Your task to perform on an android device: turn on translation in the chrome app Image 0: 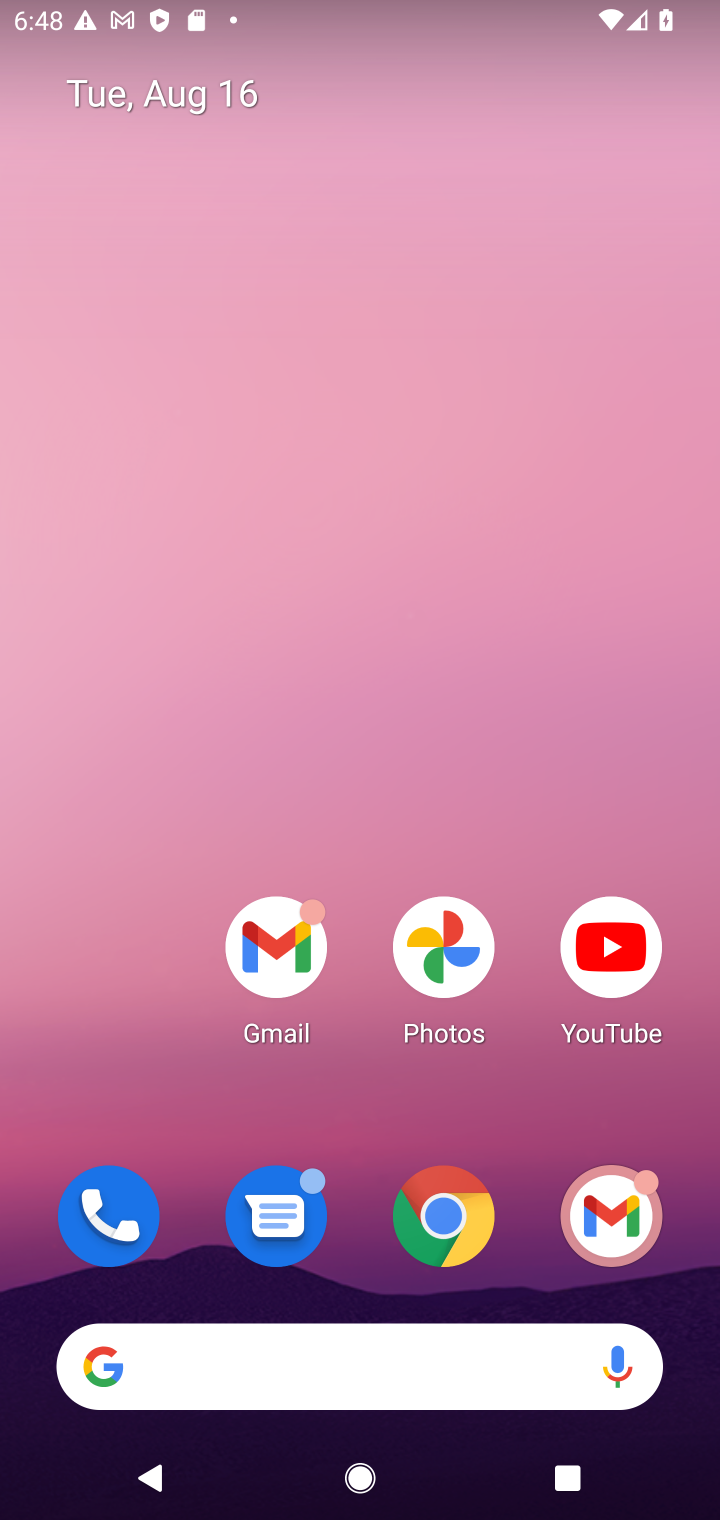
Step 0: press home button
Your task to perform on an android device: turn on translation in the chrome app Image 1: 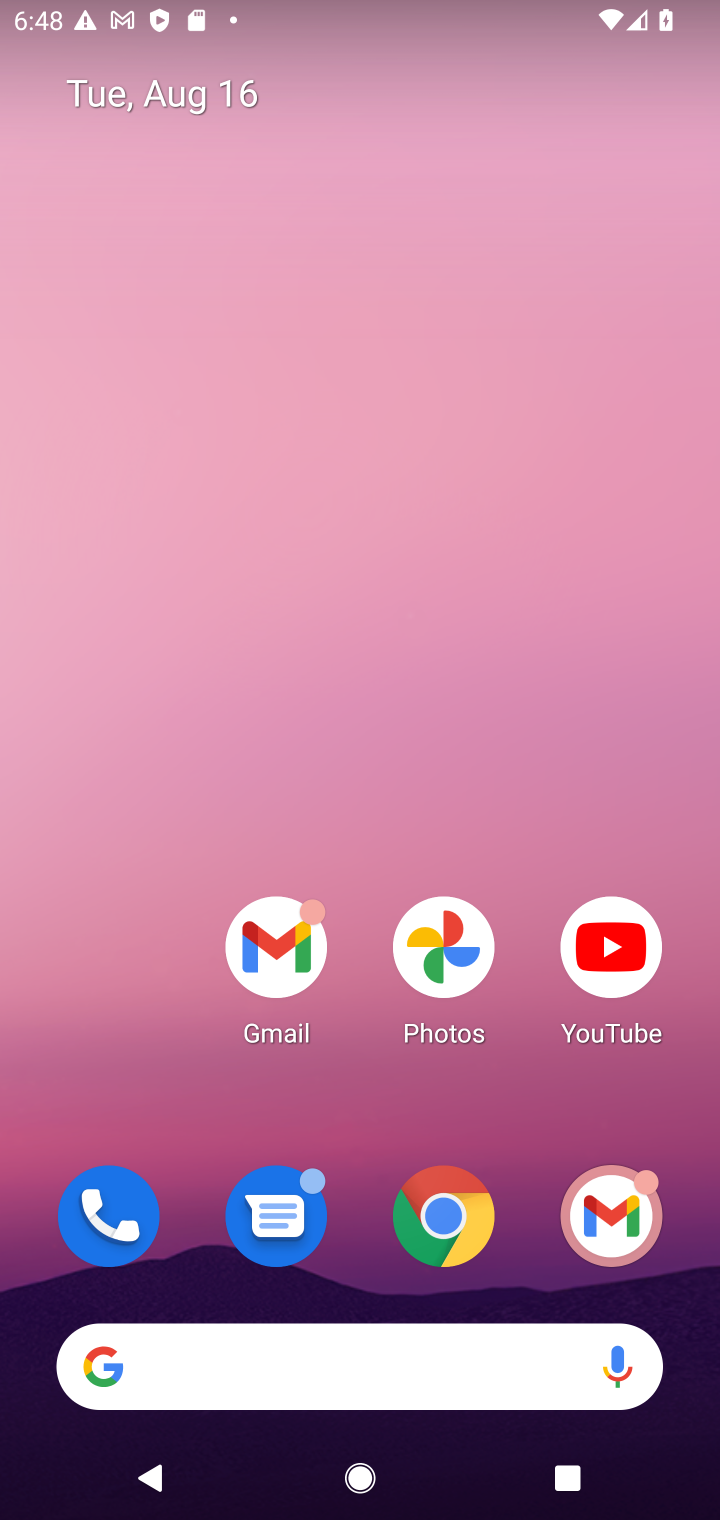
Step 1: drag from (150, 1036) to (141, 355)
Your task to perform on an android device: turn on translation in the chrome app Image 2: 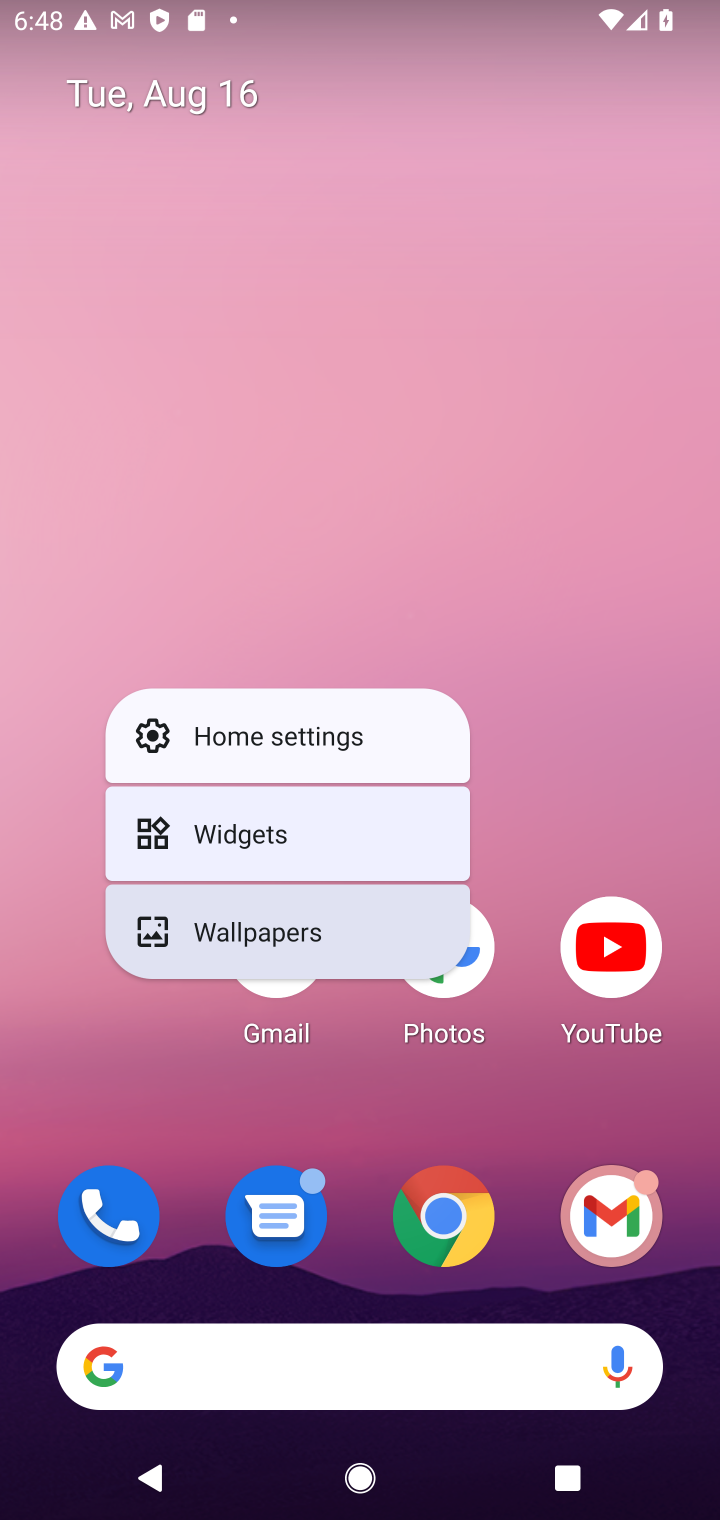
Step 2: click (109, 555)
Your task to perform on an android device: turn on translation in the chrome app Image 3: 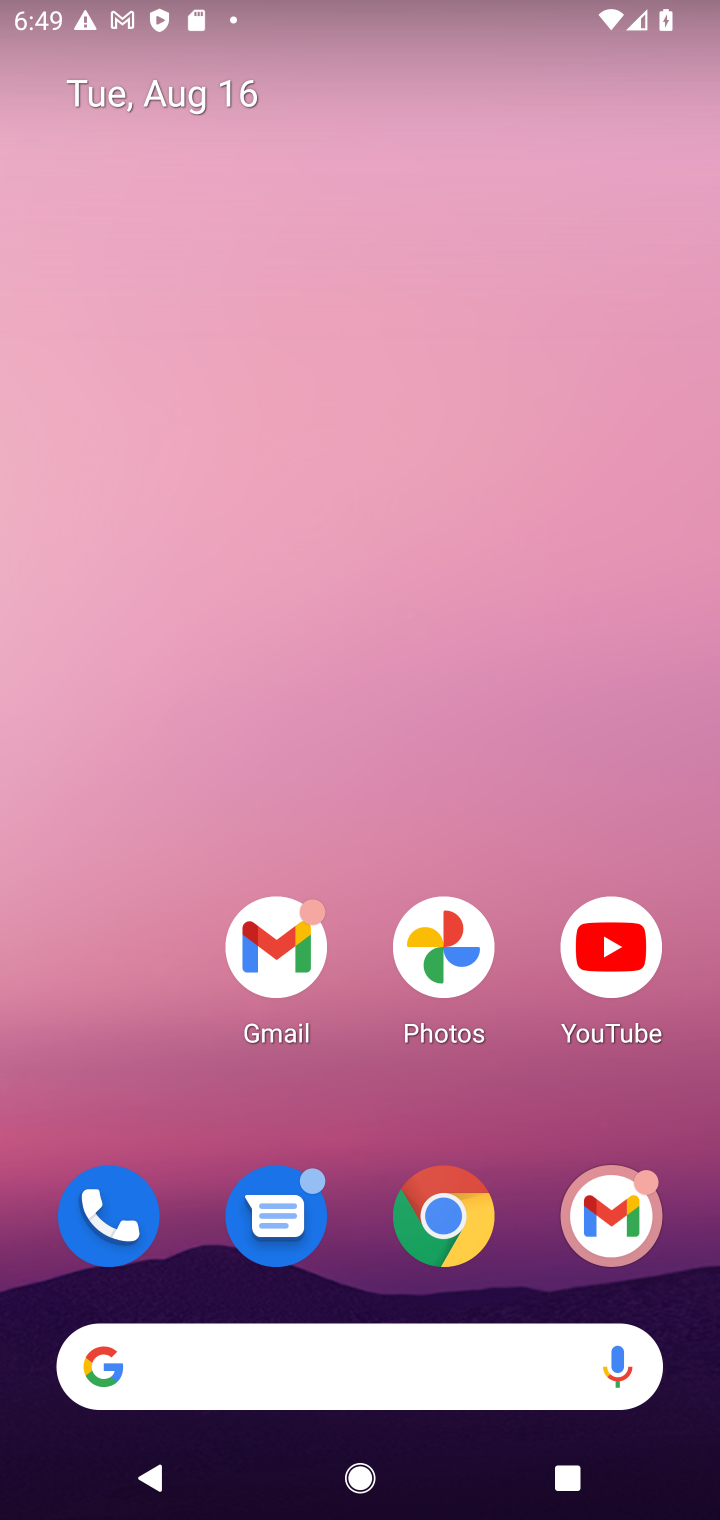
Step 3: drag from (113, 919) to (90, 123)
Your task to perform on an android device: turn on translation in the chrome app Image 4: 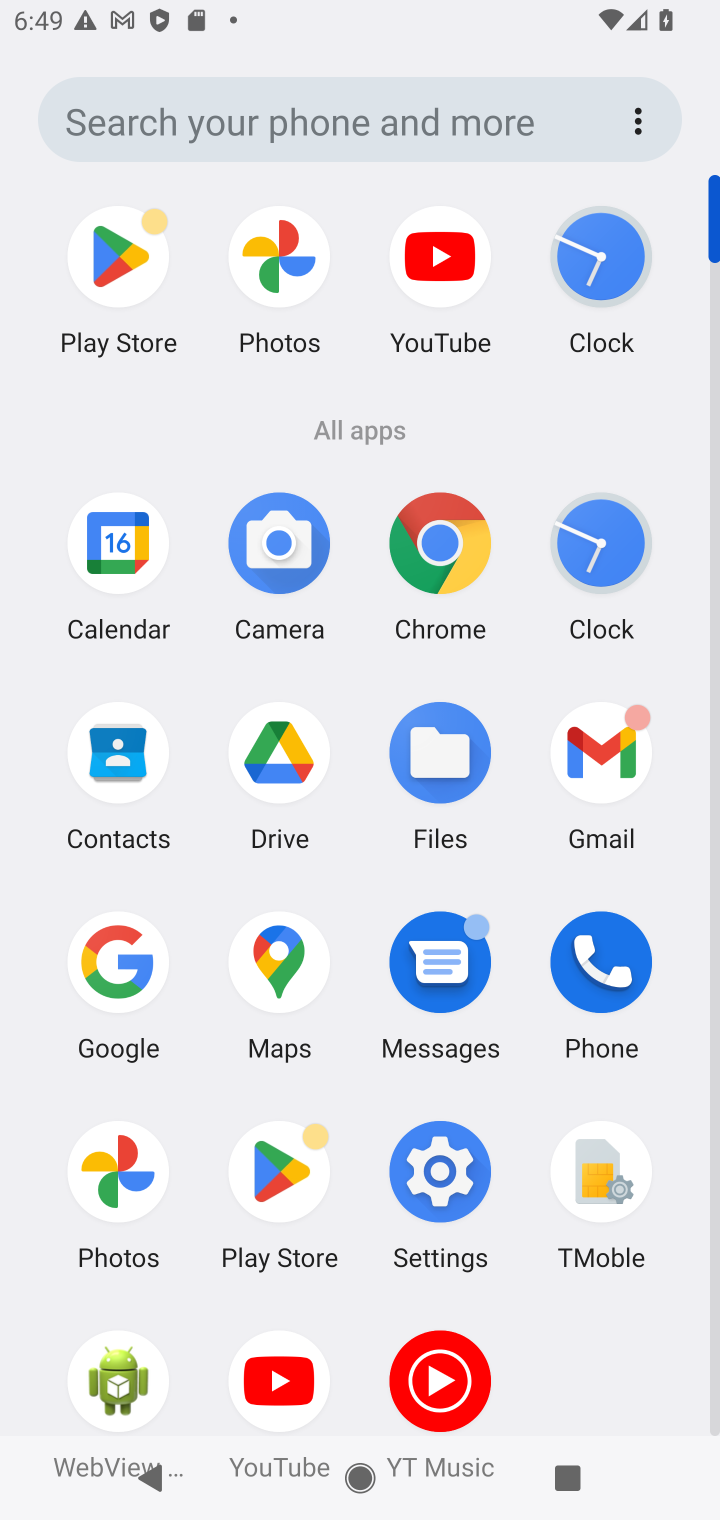
Step 4: click (459, 545)
Your task to perform on an android device: turn on translation in the chrome app Image 5: 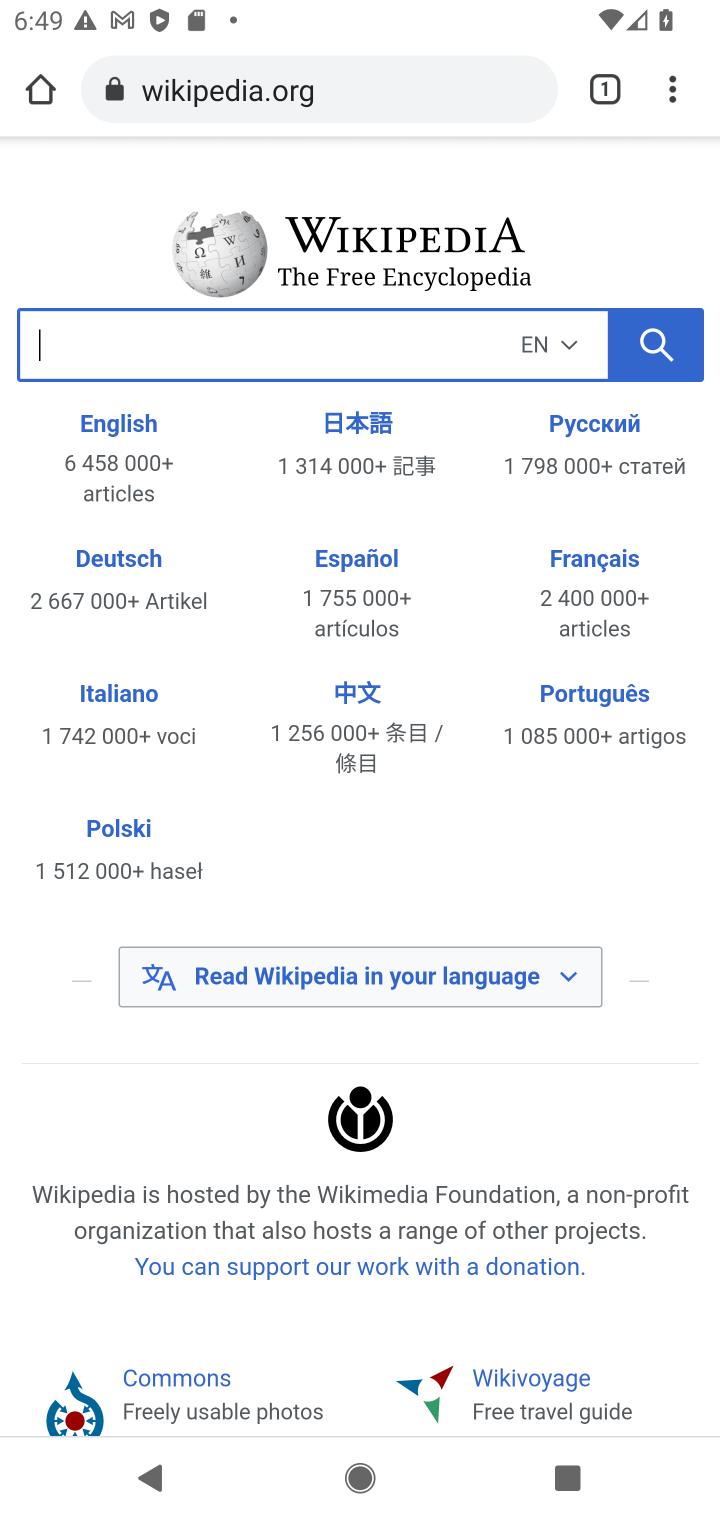
Step 5: click (673, 83)
Your task to perform on an android device: turn on translation in the chrome app Image 6: 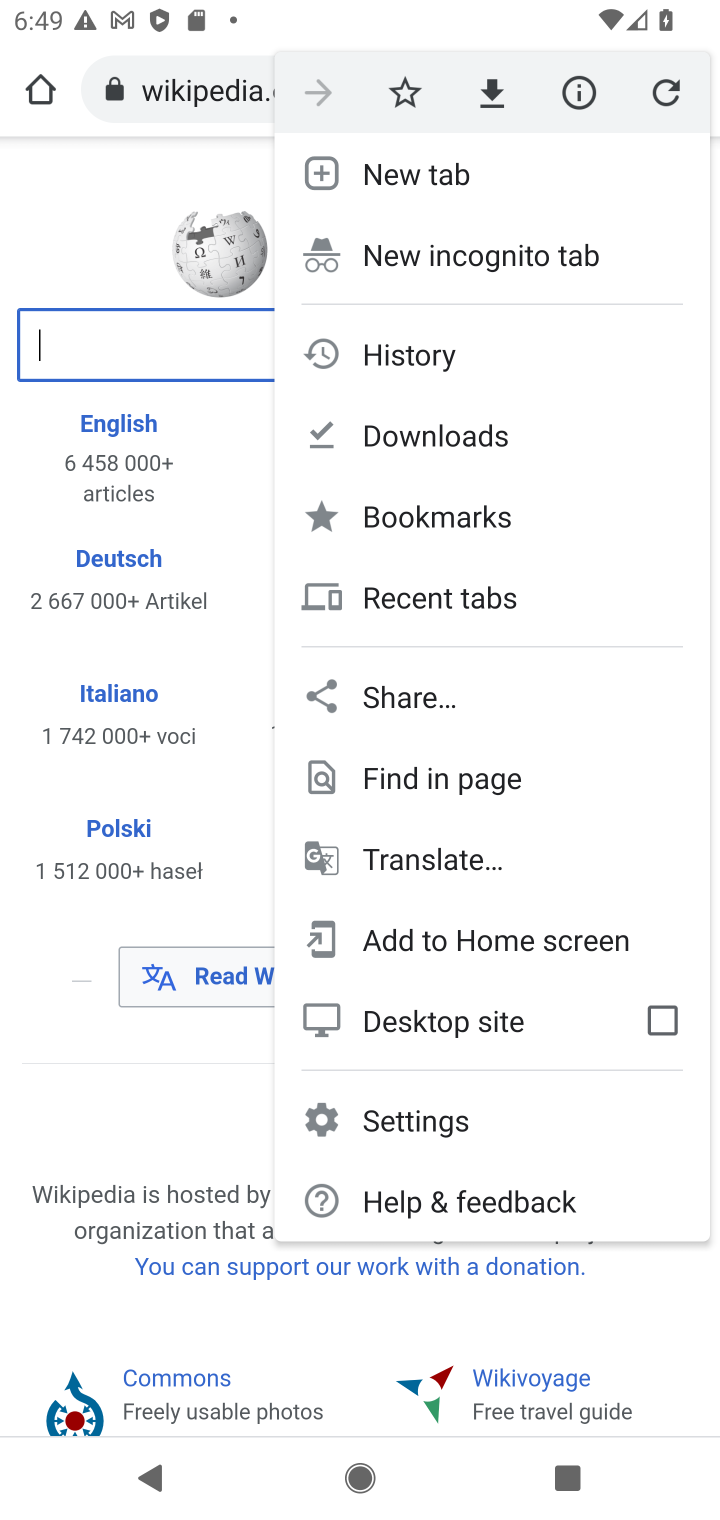
Step 6: click (486, 1122)
Your task to perform on an android device: turn on translation in the chrome app Image 7: 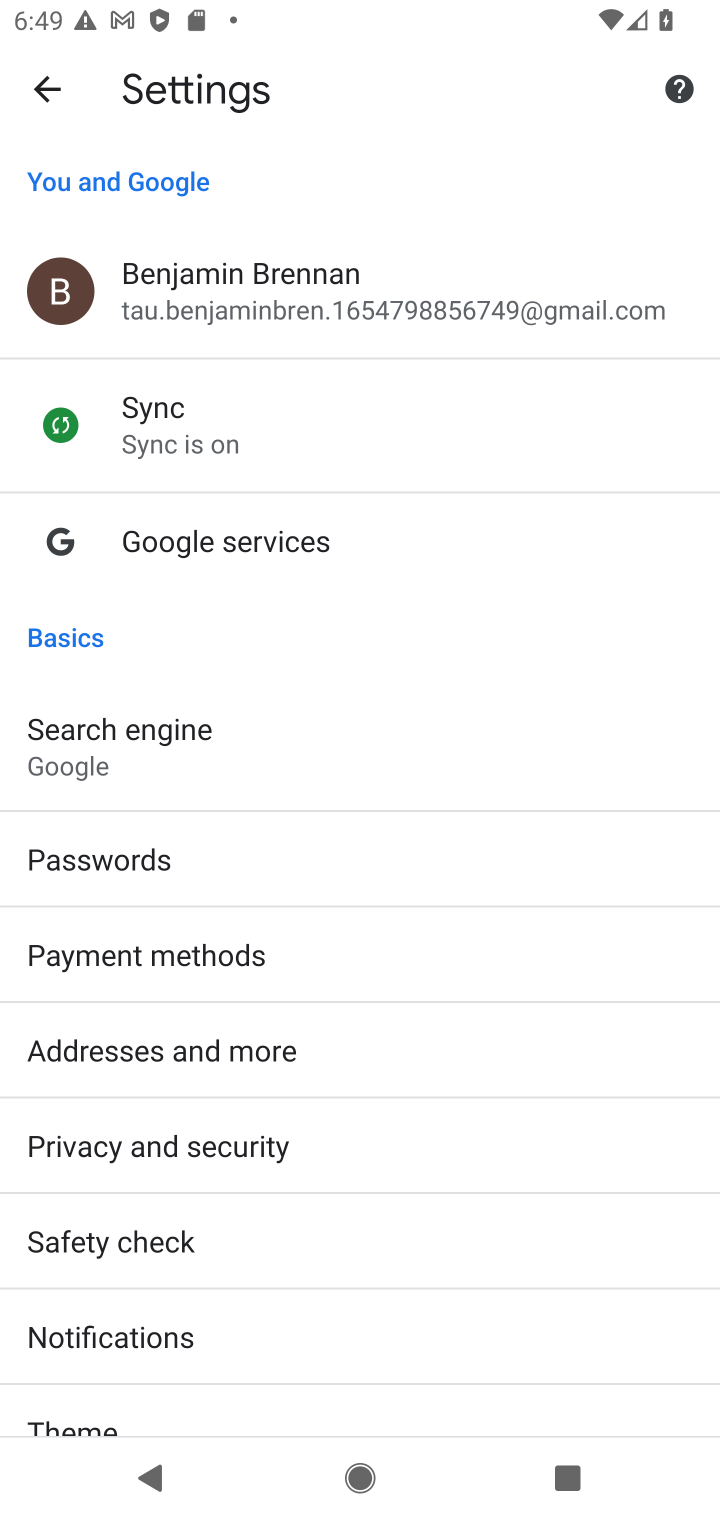
Step 7: drag from (540, 1107) to (533, 920)
Your task to perform on an android device: turn on translation in the chrome app Image 8: 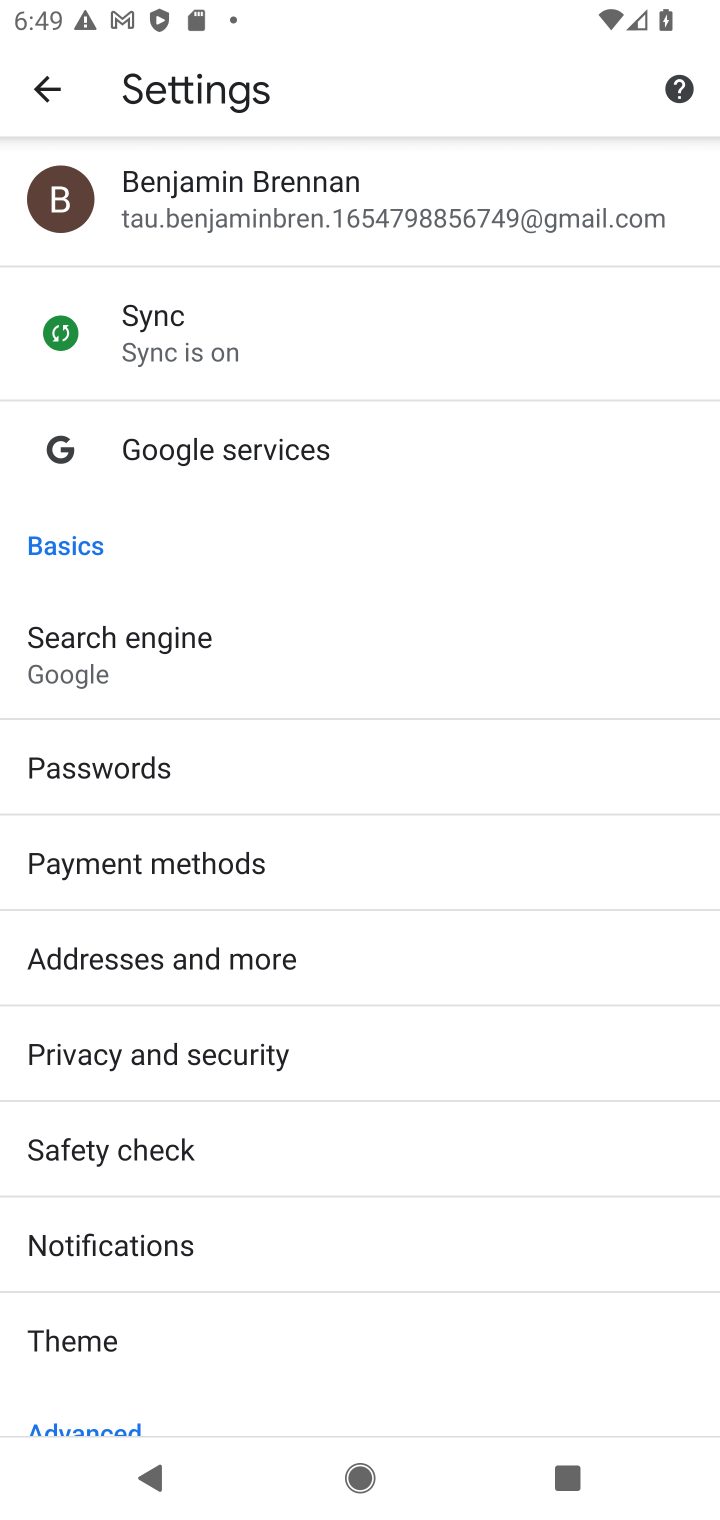
Step 8: drag from (559, 1132) to (553, 949)
Your task to perform on an android device: turn on translation in the chrome app Image 9: 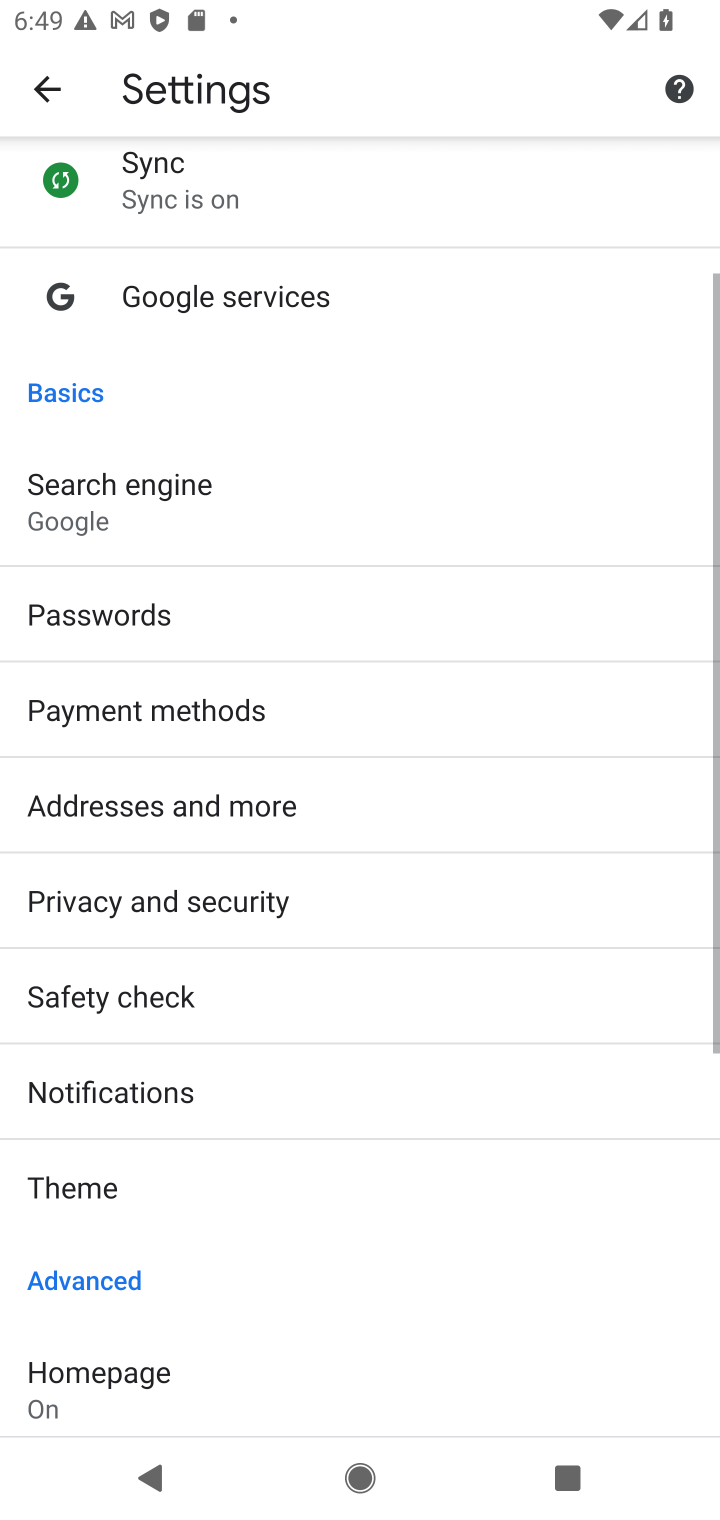
Step 9: drag from (517, 1168) to (506, 853)
Your task to perform on an android device: turn on translation in the chrome app Image 10: 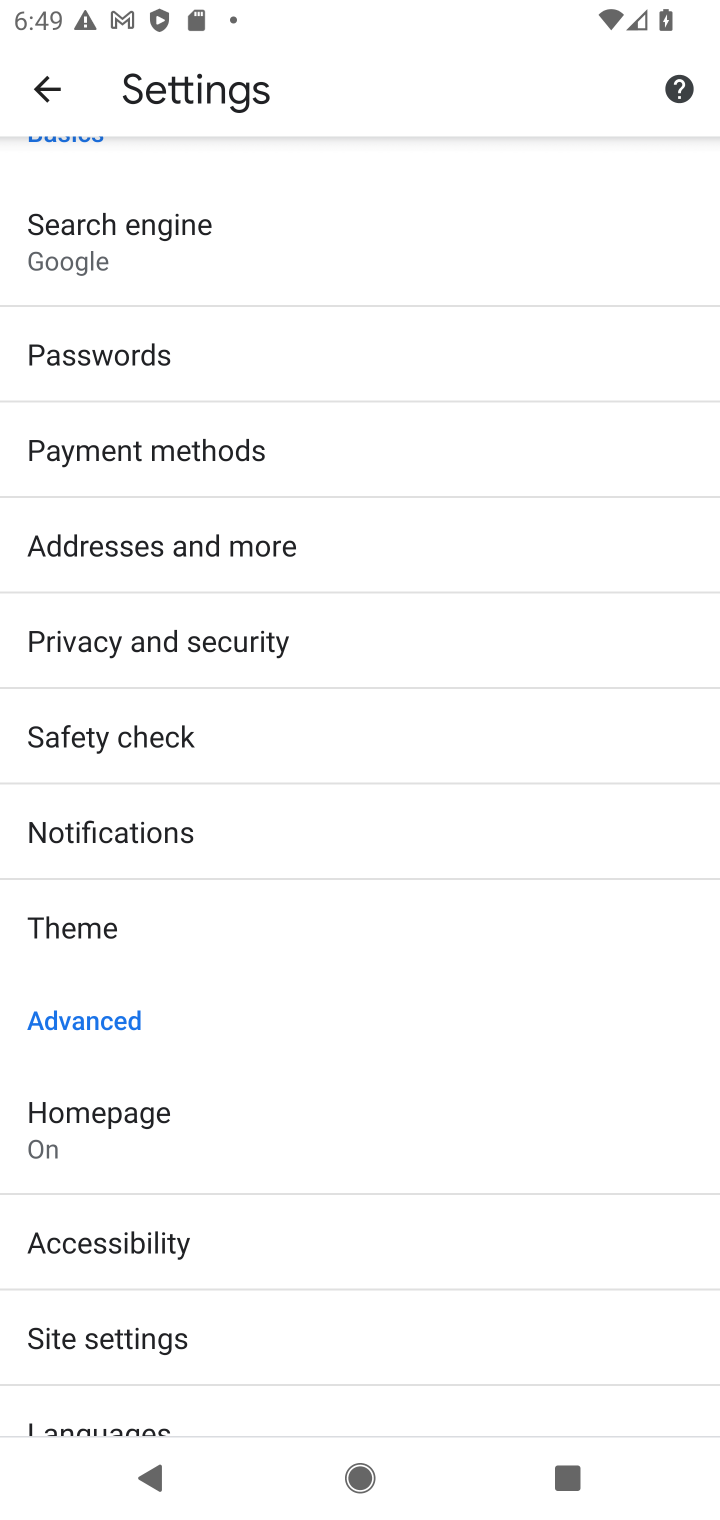
Step 10: drag from (521, 1164) to (518, 848)
Your task to perform on an android device: turn on translation in the chrome app Image 11: 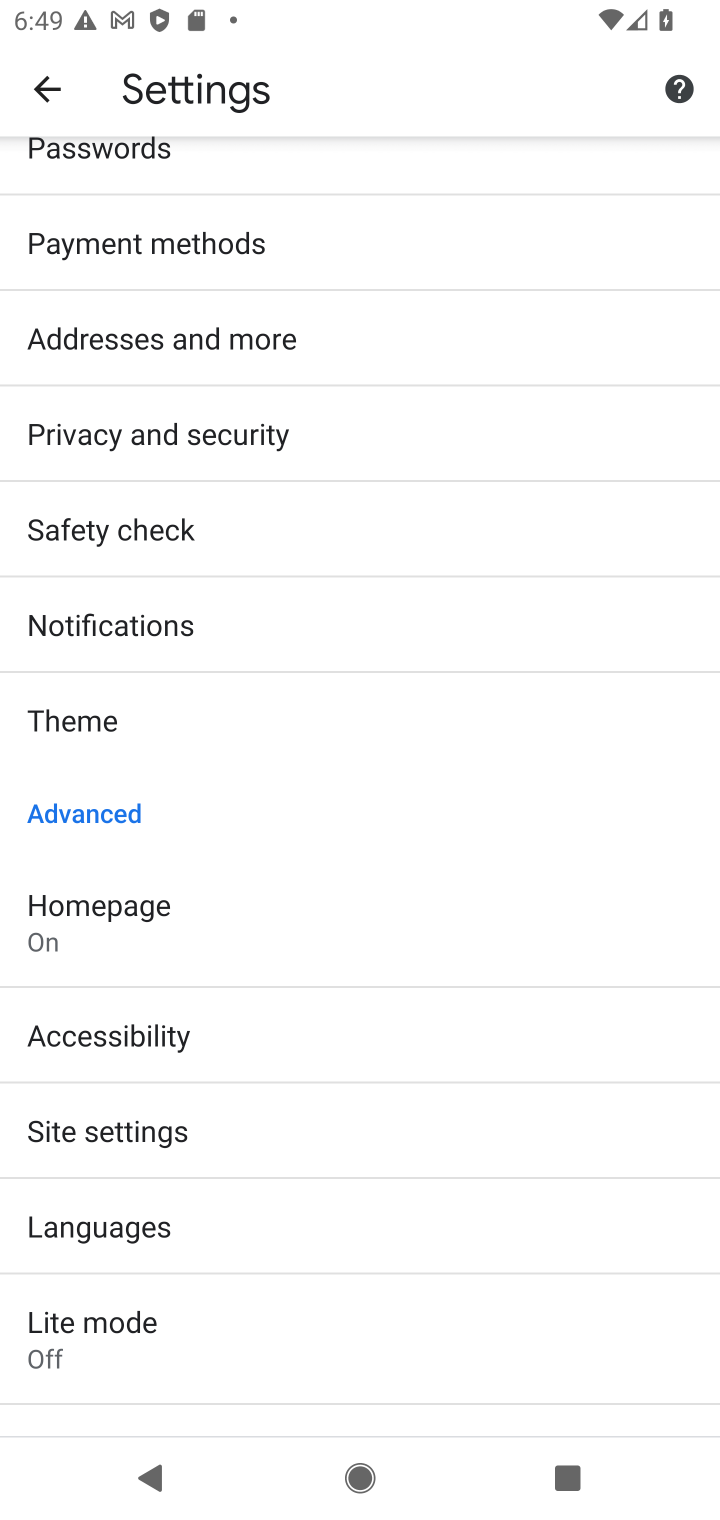
Step 11: drag from (493, 1200) to (497, 925)
Your task to perform on an android device: turn on translation in the chrome app Image 12: 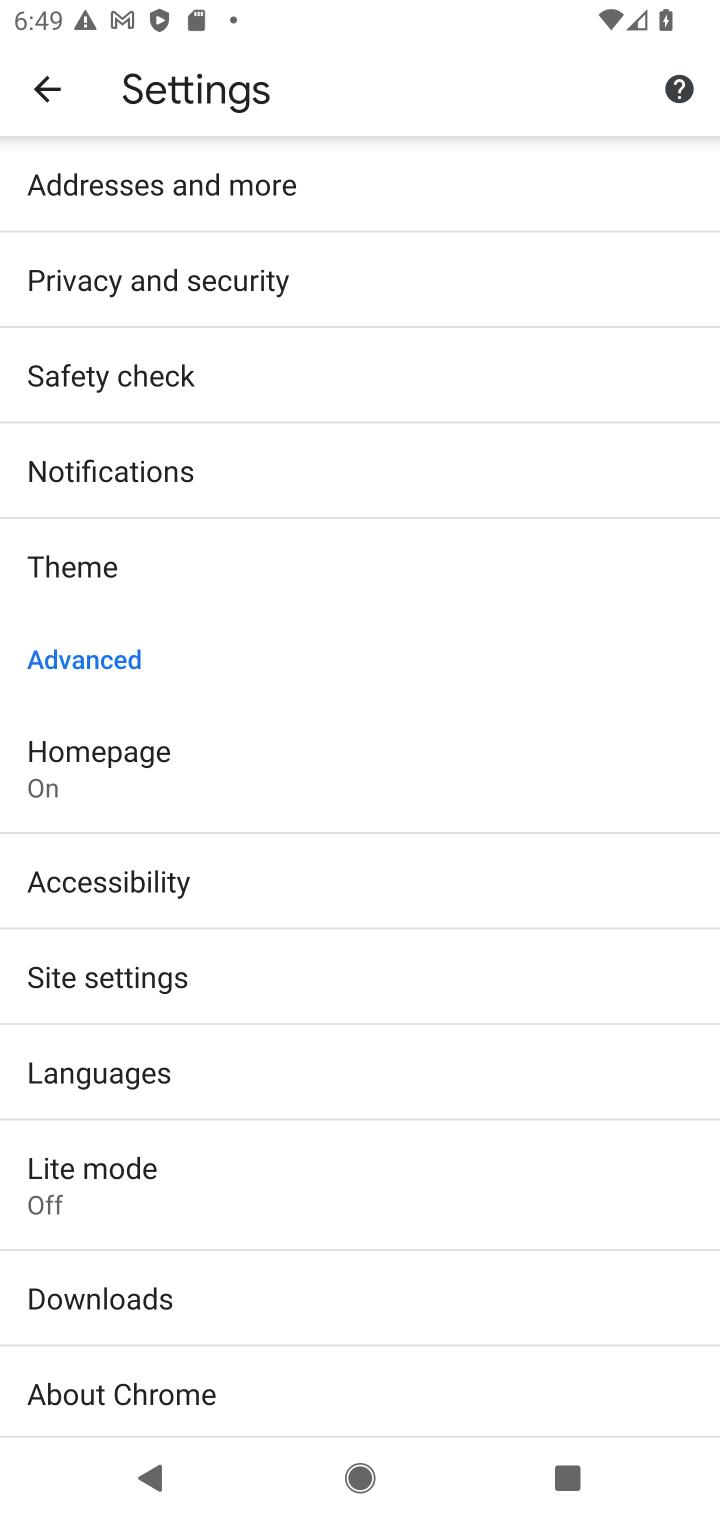
Step 12: click (456, 1083)
Your task to perform on an android device: turn on translation in the chrome app Image 13: 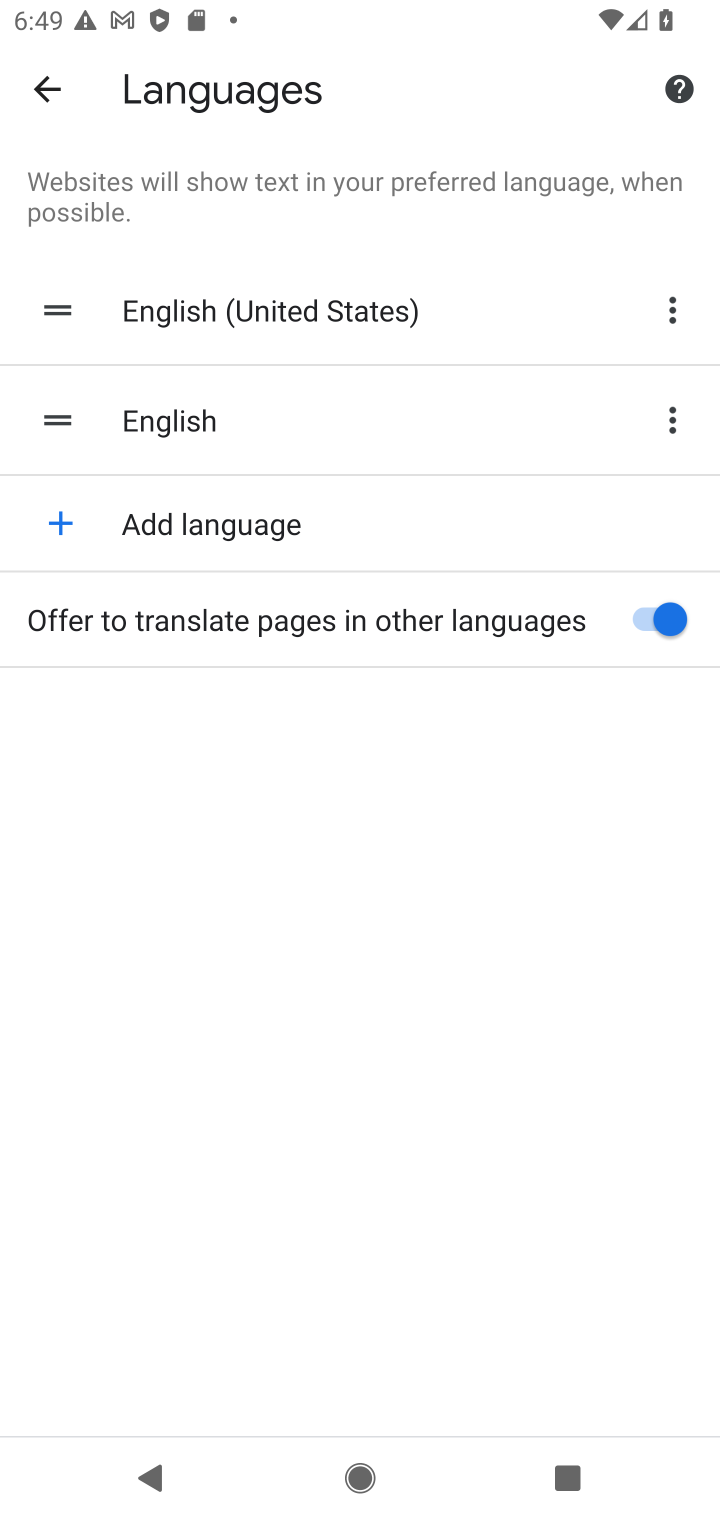
Step 13: task complete